Your task to perform on an android device: turn off priority inbox in the gmail app Image 0: 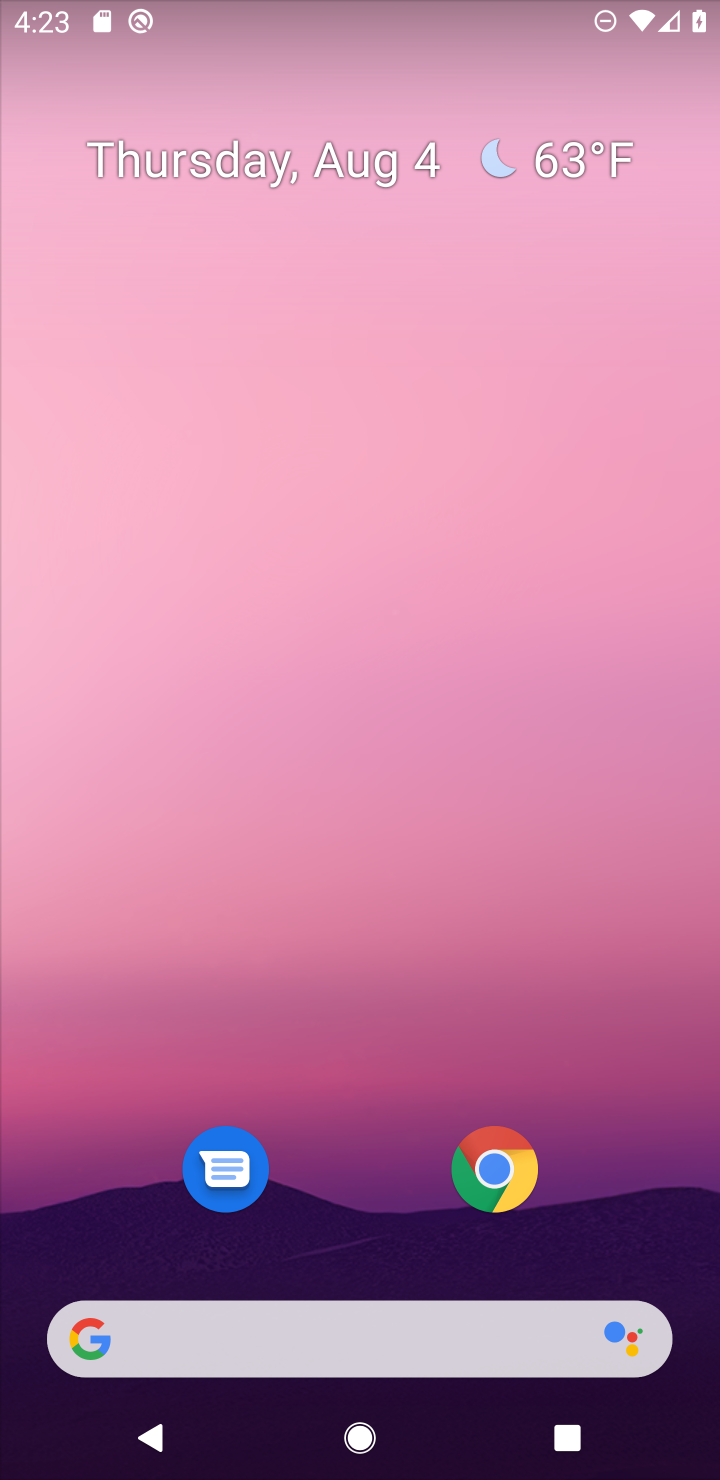
Step 0: drag from (325, 1263) to (341, 128)
Your task to perform on an android device: turn off priority inbox in the gmail app Image 1: 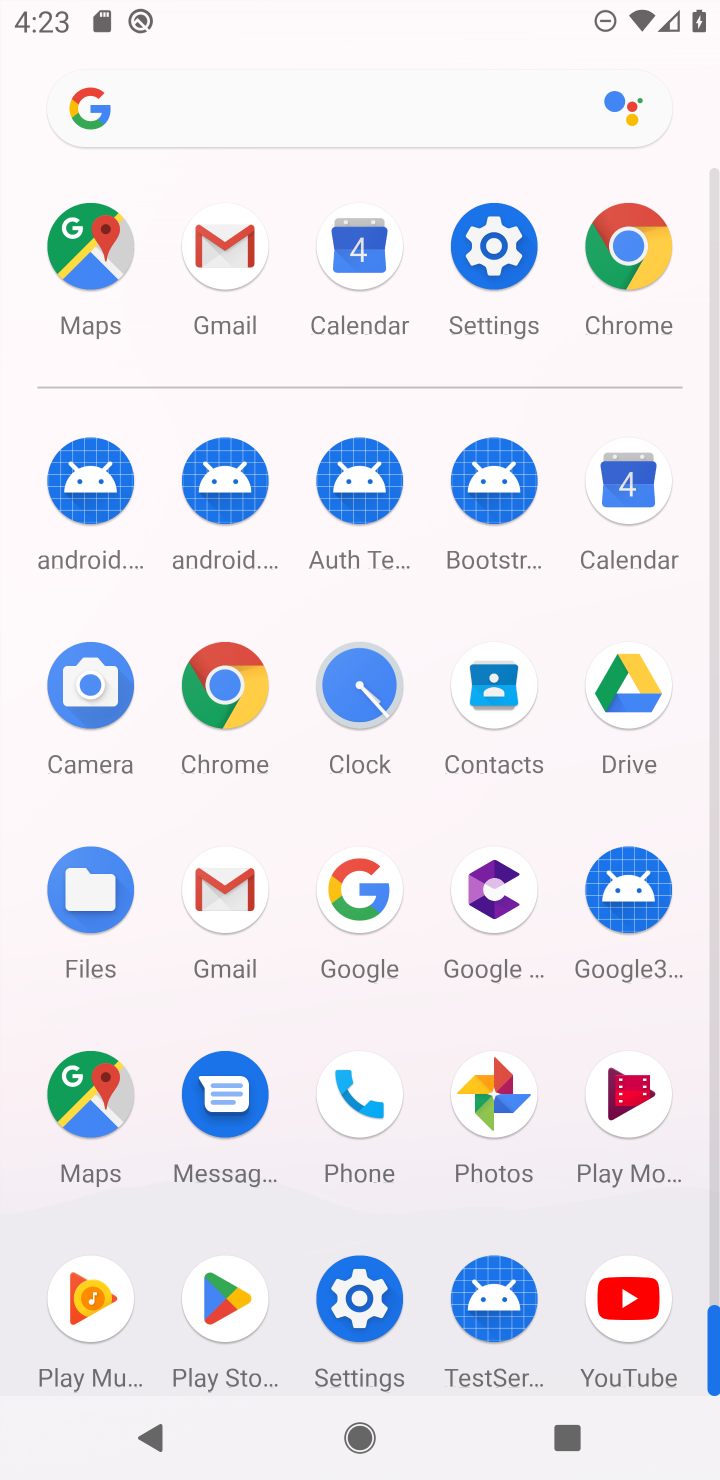
Step 1: click (232, 913)
Your task to perform on an android device: turn off priority inbox in the gmail app Image 2: 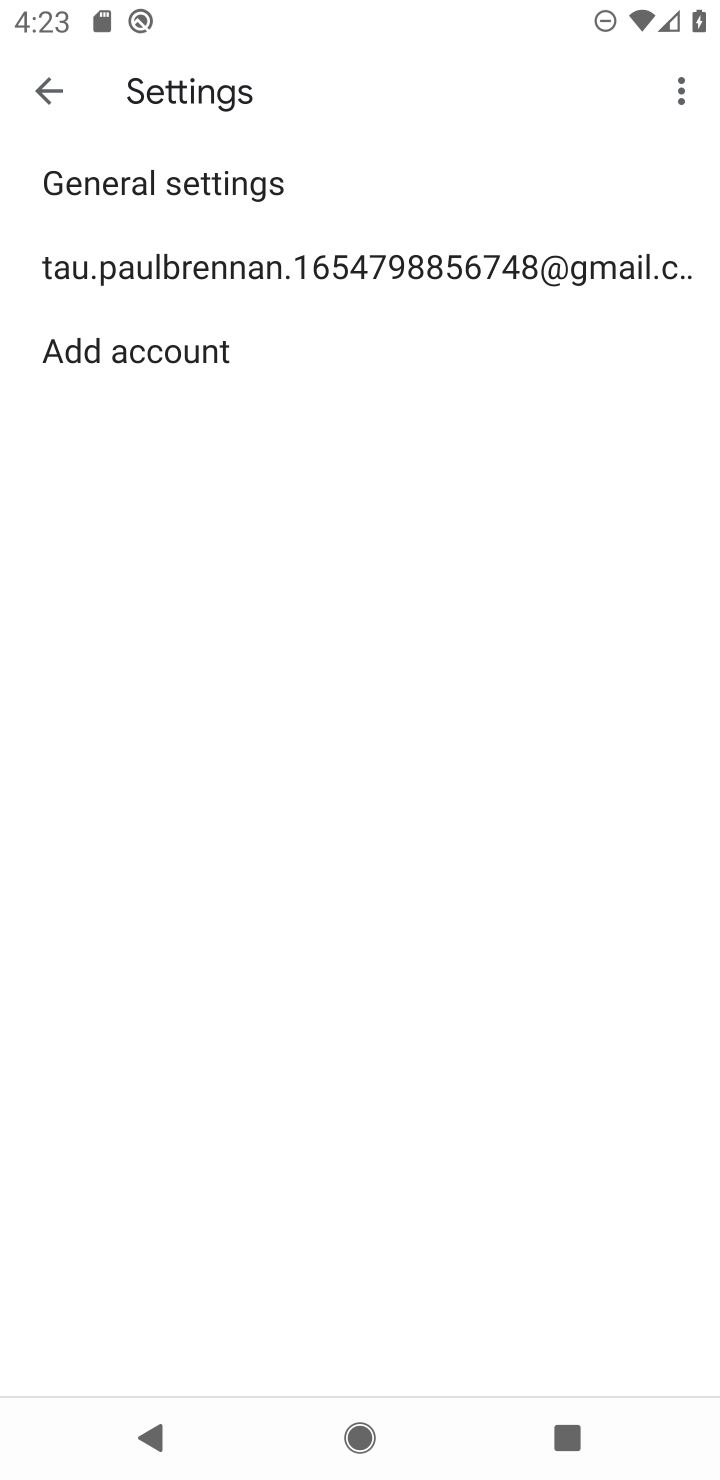
Step 2: click (134, 262)
Your task to perform on an android device: turn off priority inbox in the gmail app Image 3: 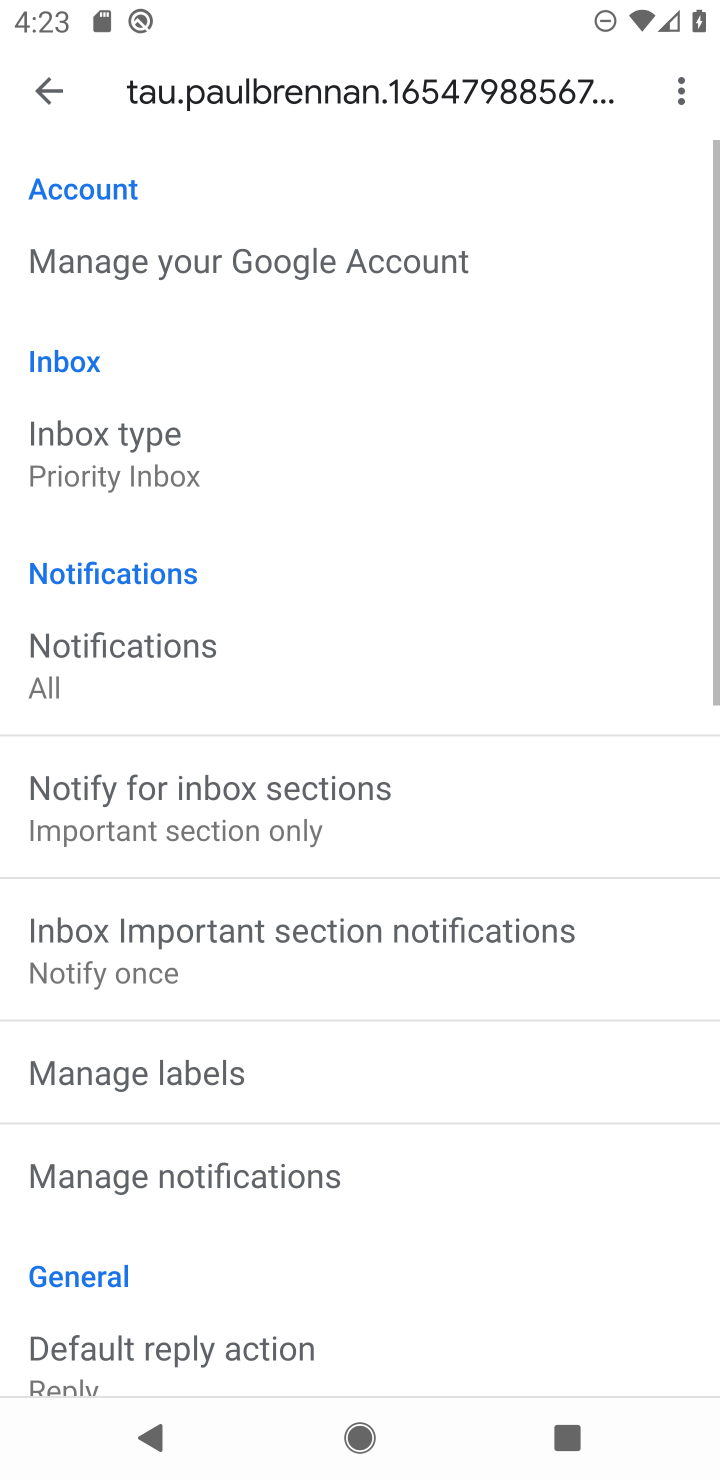
Step 3: click (145, 477)
Your task to perform on an android device: turn off priority inbox in the gmail app Image 4: 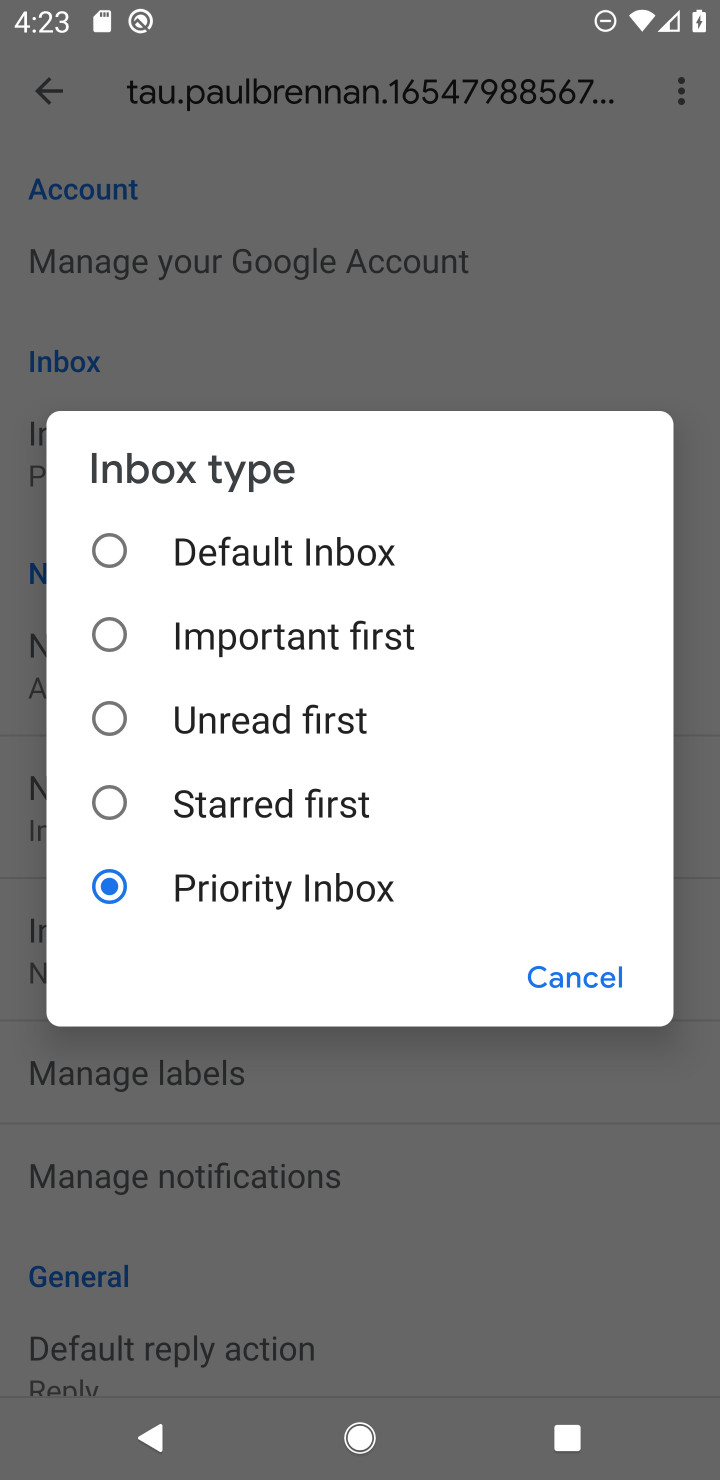
Step 4: click (167, 541)
Your task to perform on an android device: turn off priority inbox in the gmail app Image 5: 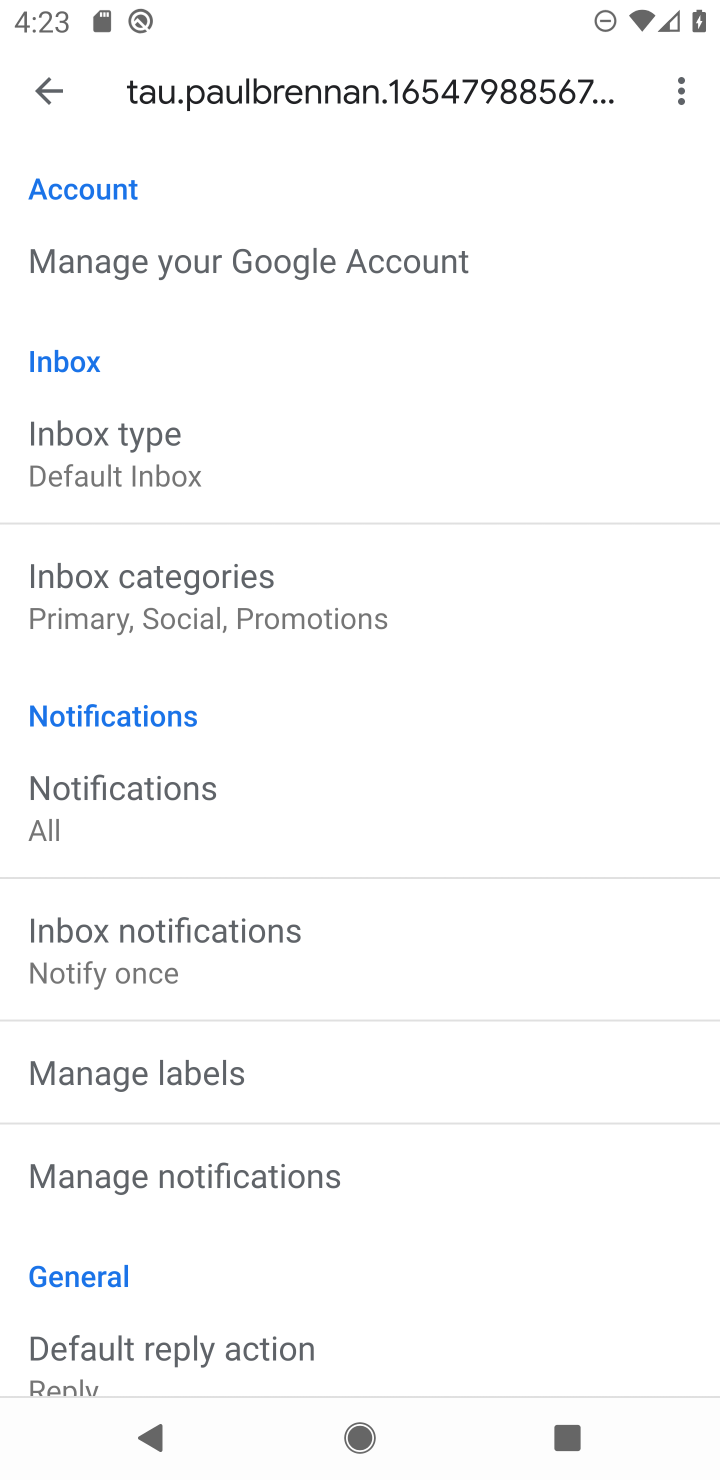
Step 5: task complete